Your task to perform on an android device: Open location settings Image 0: 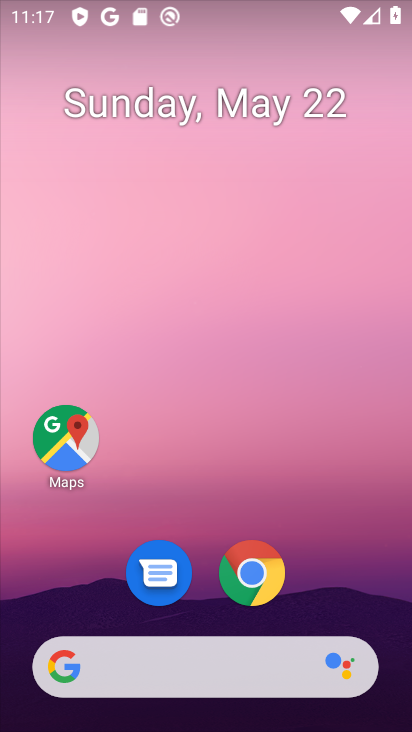
Step 0: press home button
Your task to perform on an android device: Open location settings Image 1: 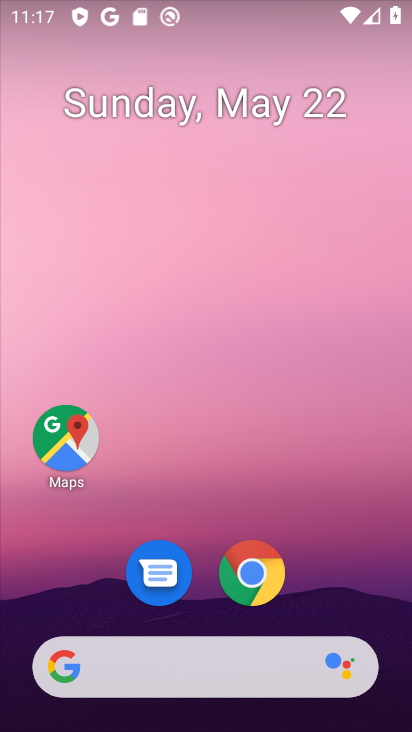
Step 1: drag from (146, 601) to (241, 86)
Your task to perform on an android device: Open location settings Image 2: 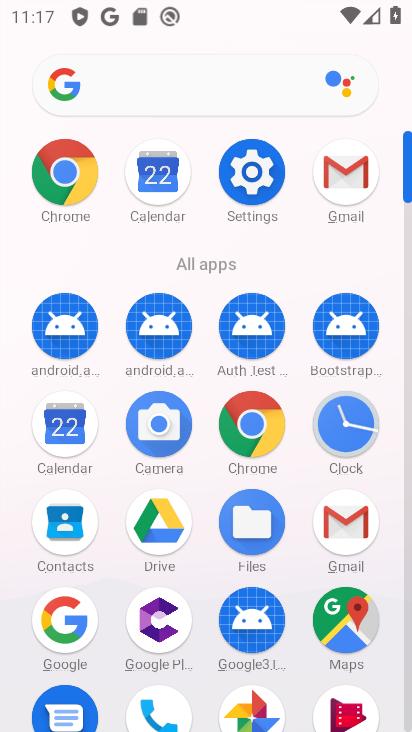
Step 2: click (248, 190)
Your task to perform on an android device: Open location settings Image 3: 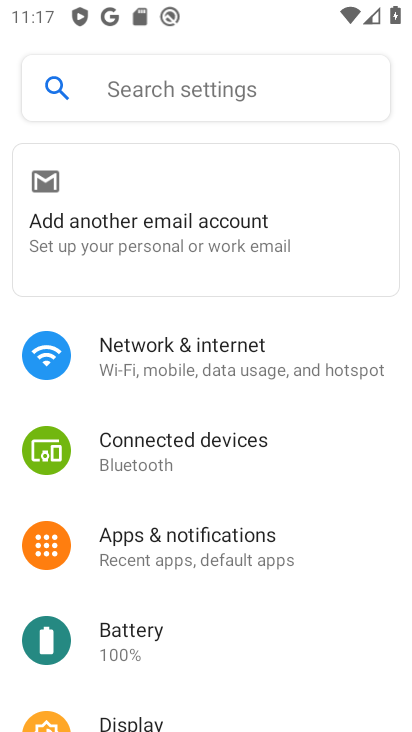
Step 3: drag from (291, 542) to (371, 170)
Your task to perform on an android device: Open location settings Image 4: 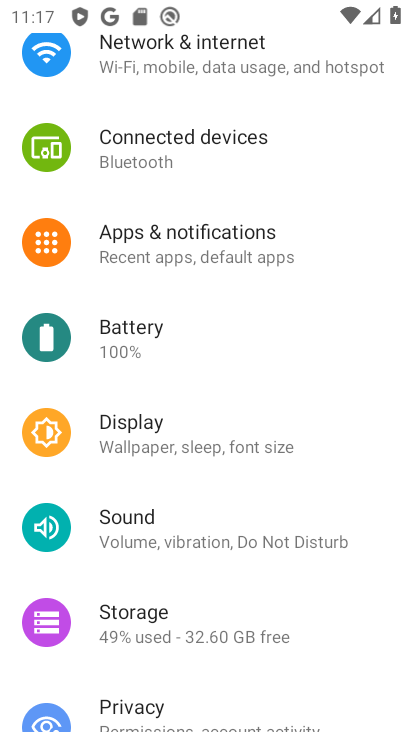
Step 4: drag from (241, 641) to (309, 146)
Your task to perform on an android device: Open location settings Image 5: 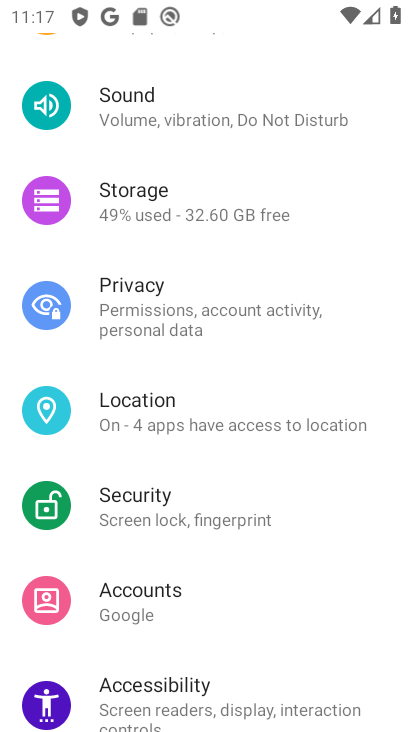
Step 5: click (167, 402)
Your task to perform on an android device: Open location settings Image 6: 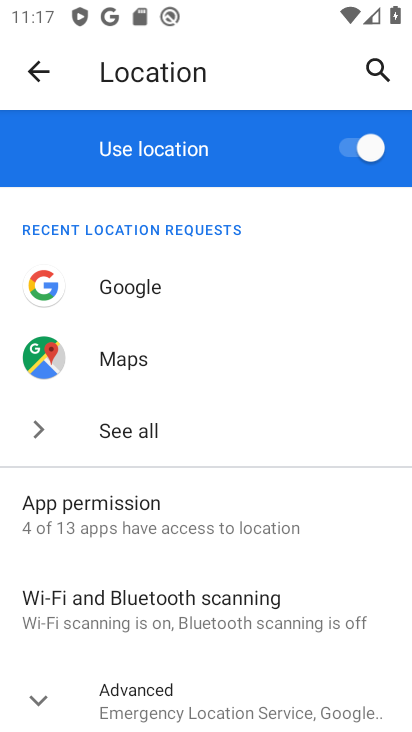
Step 6: task complete